Your task to perform on an android device: toggle data saver in the chrome app Image 0: 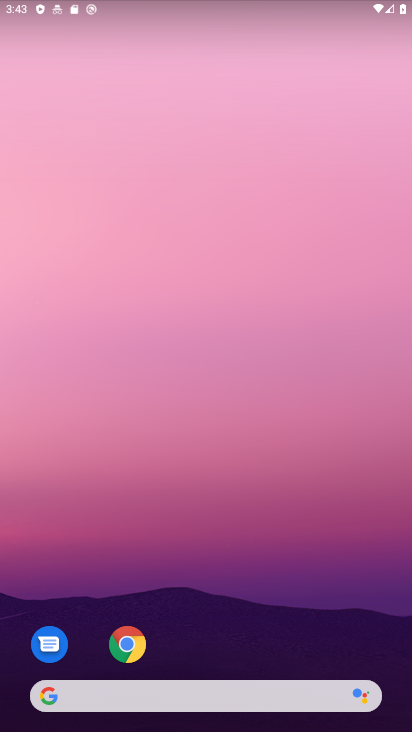
Step 0: drag from (225, 651) to (242, 78)
Your task to perform on an android device: toggle data saver in the chrome app Image 1: 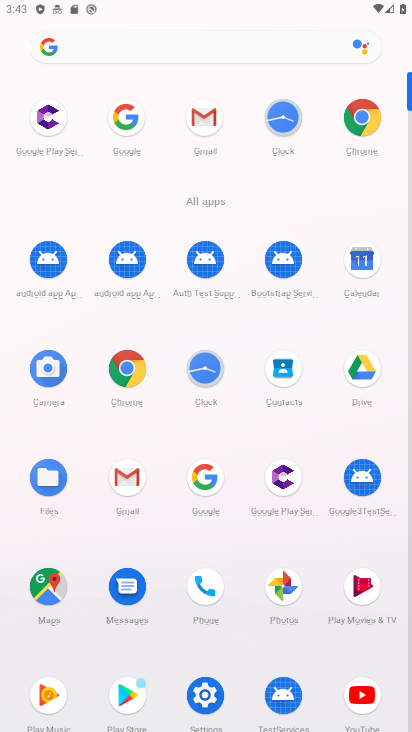
Step 1: click (126, 369)
Your task to perform on an android device: toggle data saver in the chrome app Image 2: 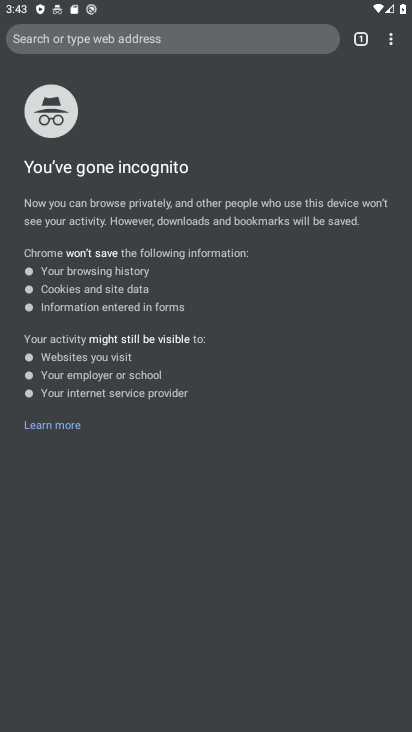
Step 2: click (384, 44)
Your task to perform on an android device: toggle data saver in the chrome app Image 3: 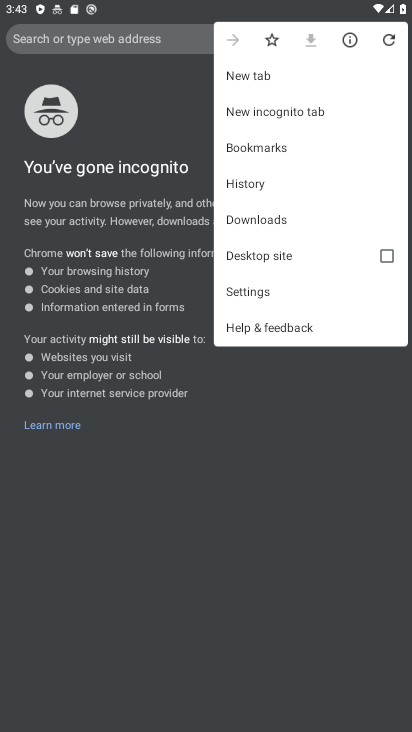
Step 3: click (276, 293)
Your task to perform on an android device: toggle data saver in the chrome app Image 4: 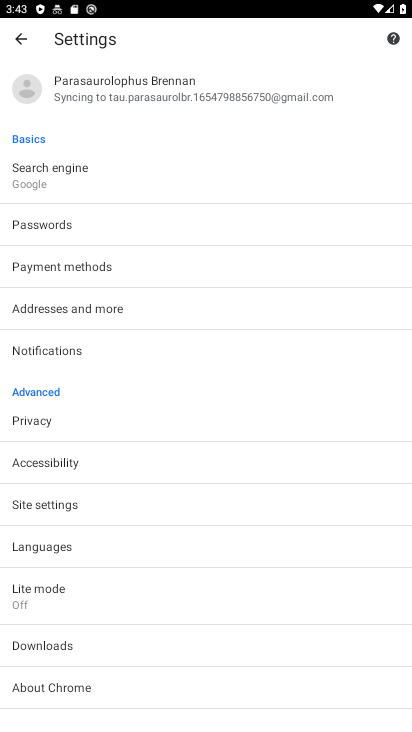
Step 4: click (68, 591)
Your task to perform on an android device: toggle data saver in the chrome app Image 5: 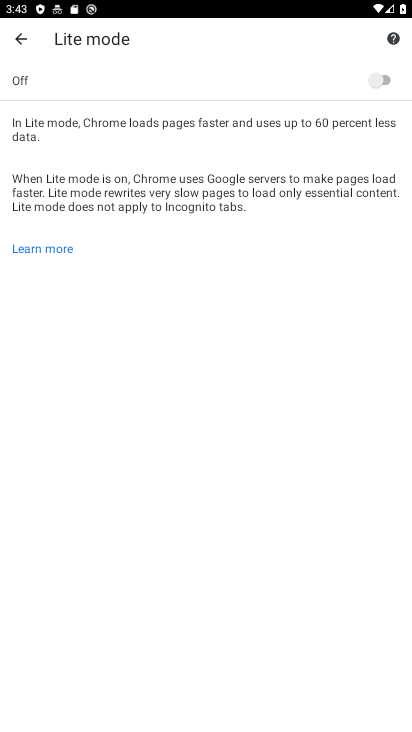
Step 5: click (374, 86)
Your task to perform on an android device: toggle data saver in the chrome app Image 6: 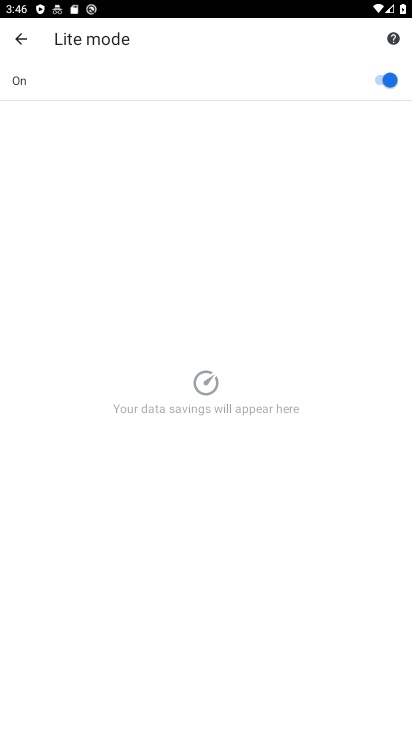
Step 6: task complete